Your task to perform on an android device: see creations saved in the google photos Image 0: 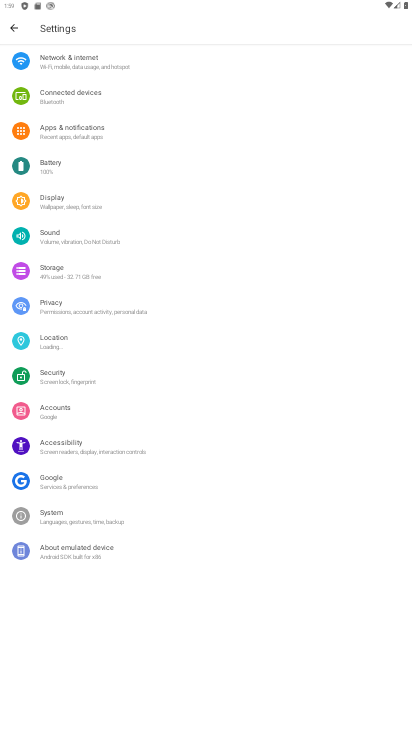
Step 0: press home button
Your task to perform on an android device: see creations saved in the google photos Image 1: 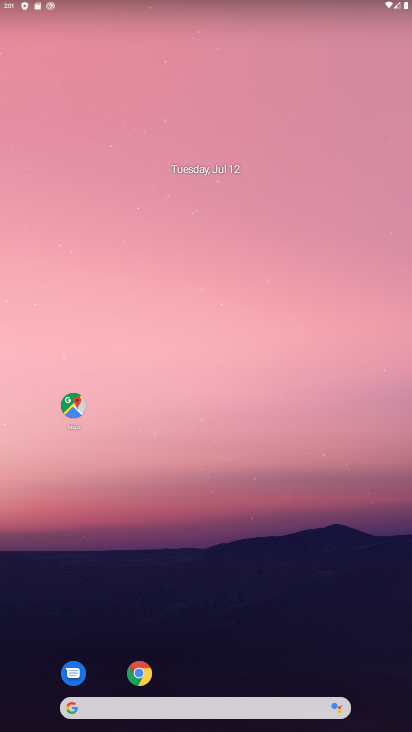
Step 1: drag from (281, 679) to (251, 154)
Your task to perform on an android device: see creations saved in the google photos Image 2: 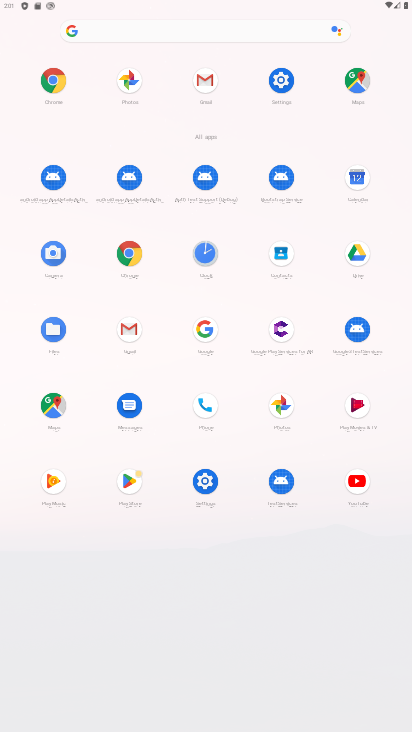
Step 2: click (293, 401)
Your task to perform on an android device: see creations saved in the google photos Image 3: 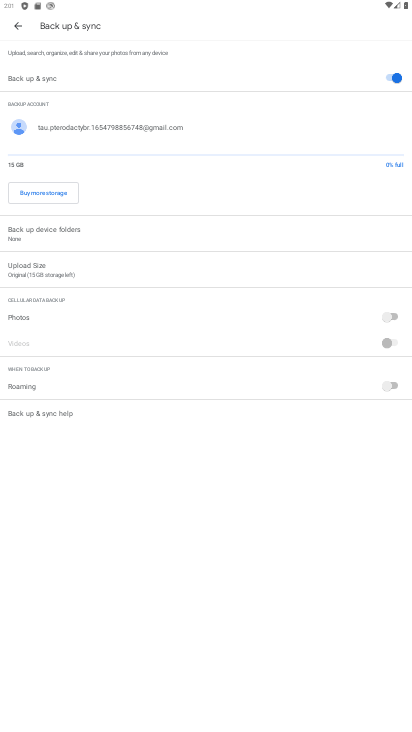
Step 3: click (15, 29)
Your task to perform on an android device: see creations saved in the google photos Image 4: 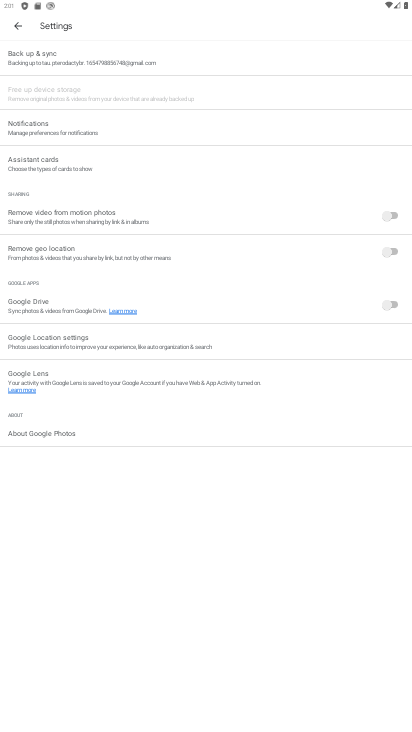
Step 4: click (15, 29)
Your task to perform on an android device: see creations saved in the google photos Image 5: 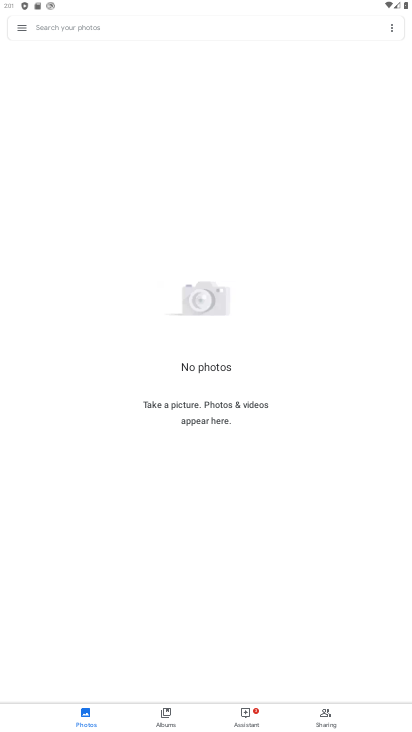
Step 5: click (15, 29)
Your task to perform on an android device: see creations saved in the google photos Image 6: 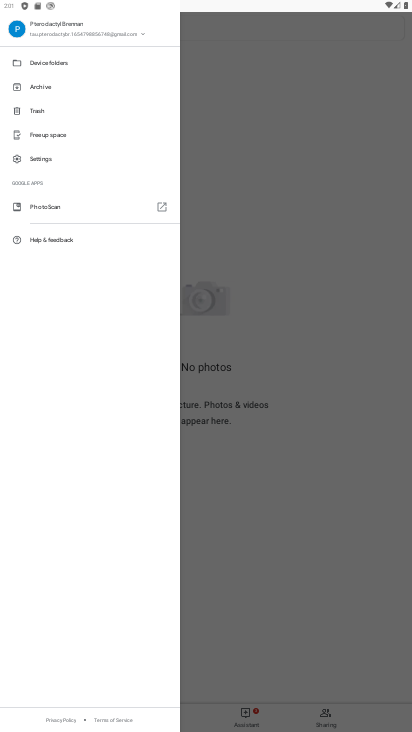
Step 6: click (266, 251)
Your task to perform on an android device: see creations saved in the google photos Image 7: 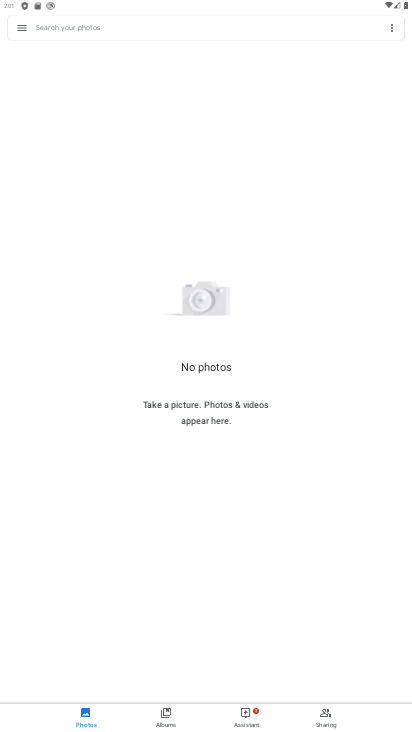
Step 7: click (218, 23)
Your task to perform on an android device: see creations saved in the google photos Image 8: 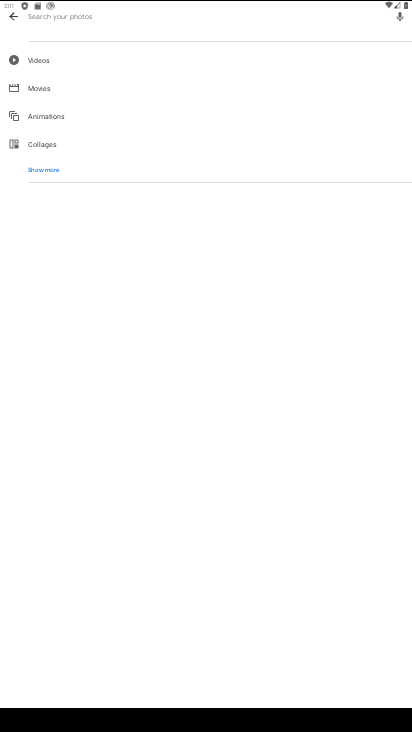
Step 8: click (31, 175)
Your task to perform on an android device: see creations saved in the google photos Image 9: 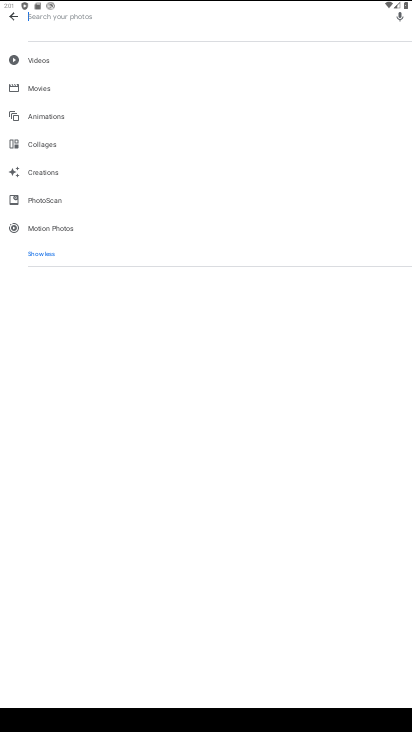
Step 9: click (31, 175)
Your task to perform on an android device: see creations saved in the google photos Image 10: 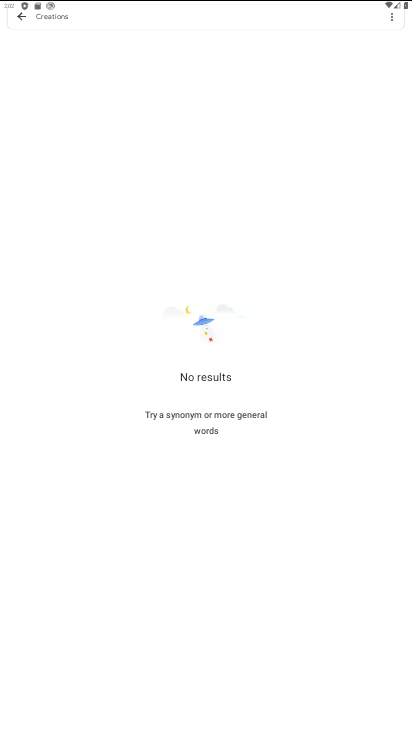
Step 10: task complete